Your task to perform on an android device: Open notification settings Image 0: 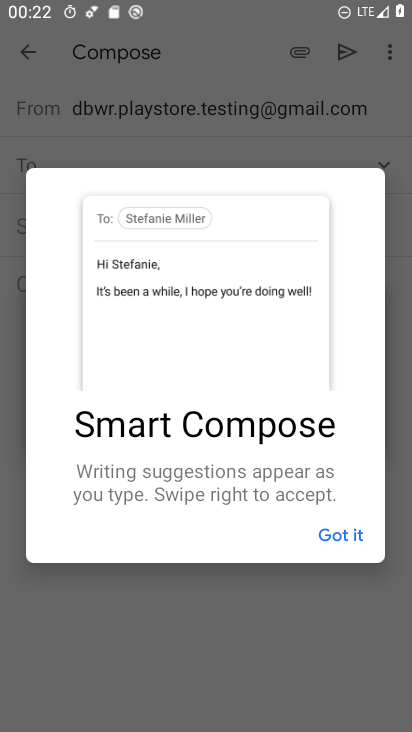
Step 0: press home button
Your task to perform on an android device: Open notification settings Image 1: 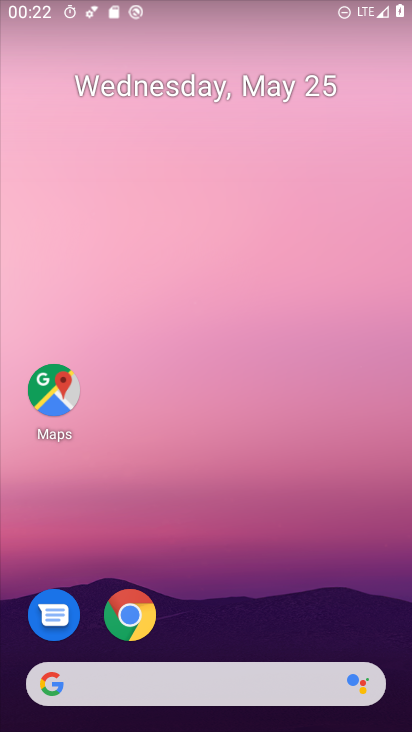
Step 1: drag from (264, 701) to (262, 6)
Your task to perform on an android device: Open notification settings Image 2: 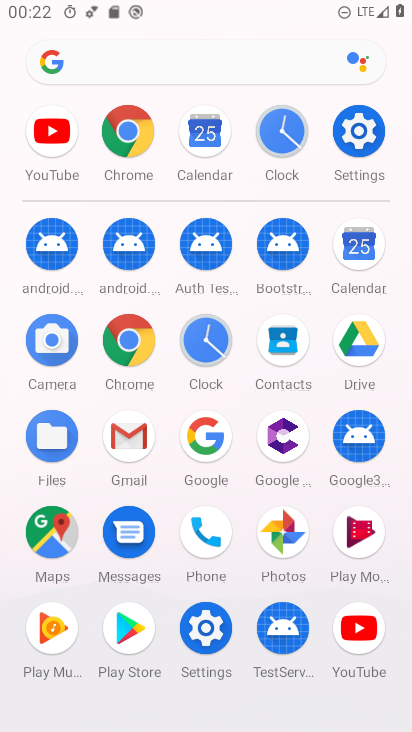
Step 2: click (358, 138)
Your task to perform on an android device: Open notification settings Image 3: 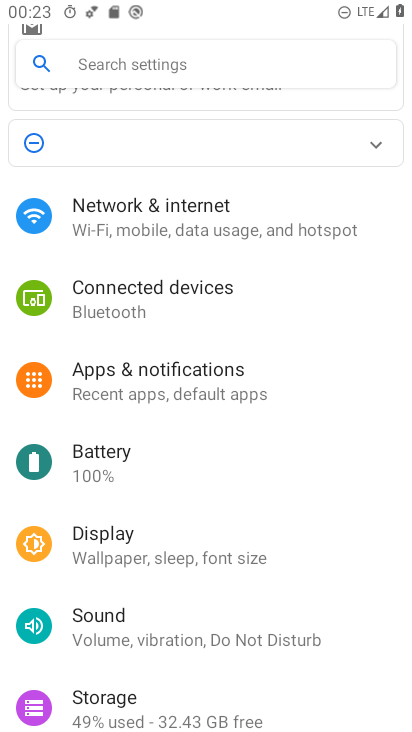
Step 3: click (113, 59)
Your task to perform on an android device: Open notification settings Image 4: 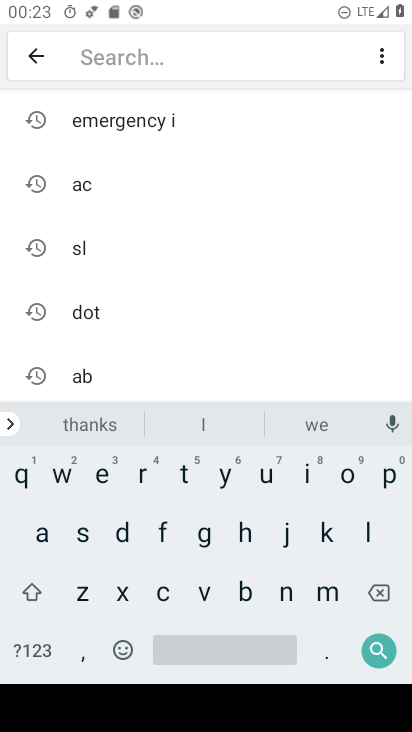
Step 4: click (285, 595)
Your task to perform on an android device: Open notification settings Image 5: 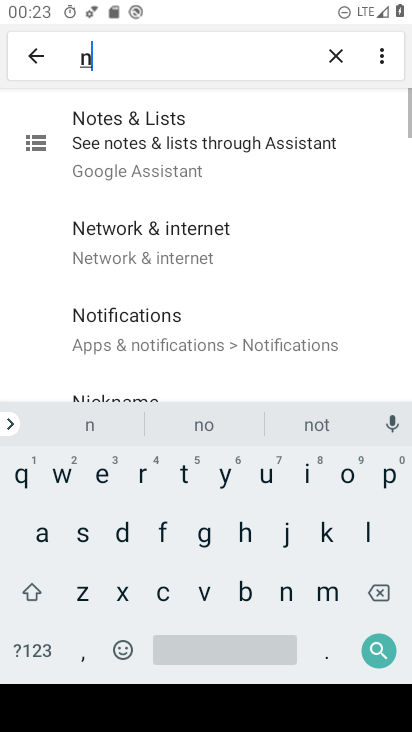
Step 5: click (348, 475)
Your task to perform on an android device: Open notification settings Image 6: 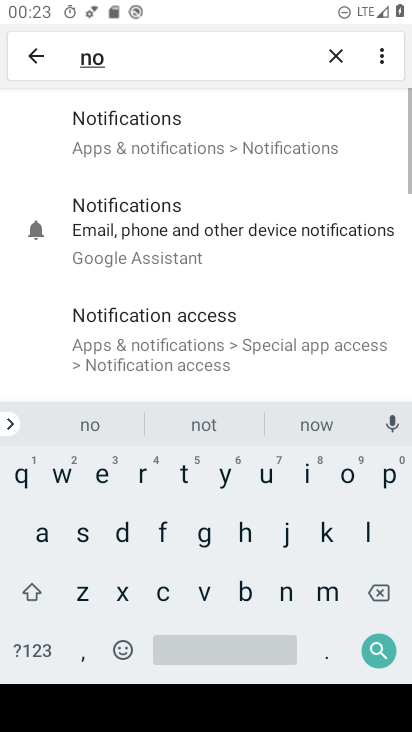
Step 6: click (169, 137)
Your task to perform on an android device: Open notification settings Image 7: 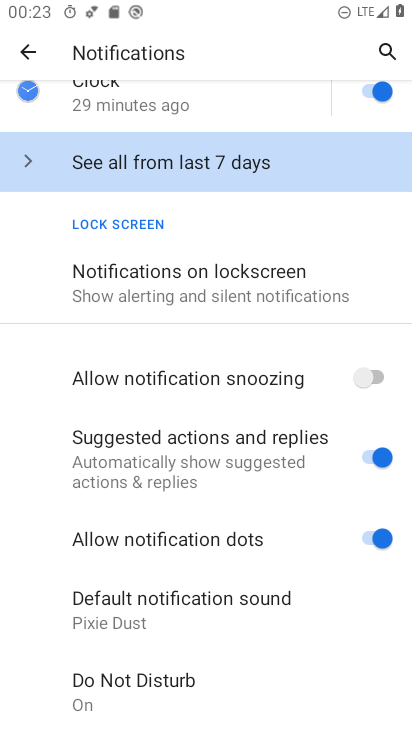
Step 7: click (146, 271)
Your task to perform on an android device: Open notification settings Image 8: 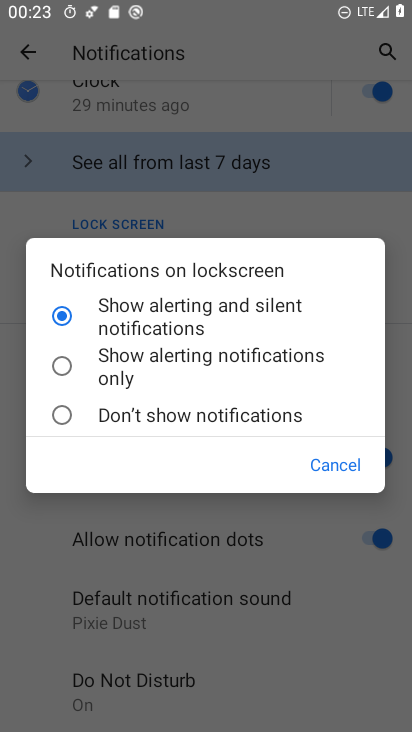
Step 8: task complete